Your task to perform on an android device: Check the weather Image 0: 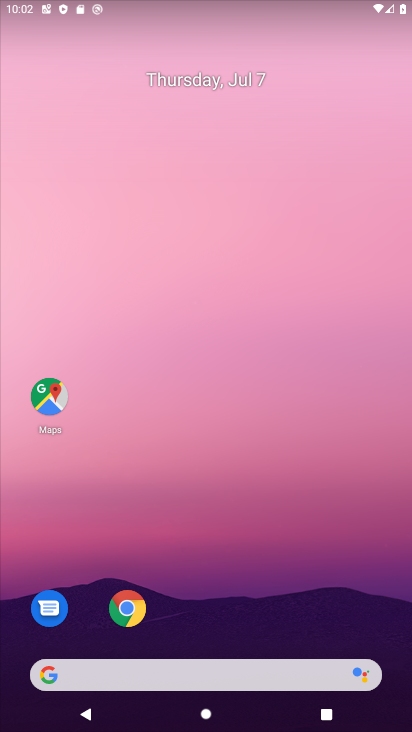
Step 0: drag from (264, 609) to (263, 216)
Your task to perform on an android device: Check the weather Image 1: 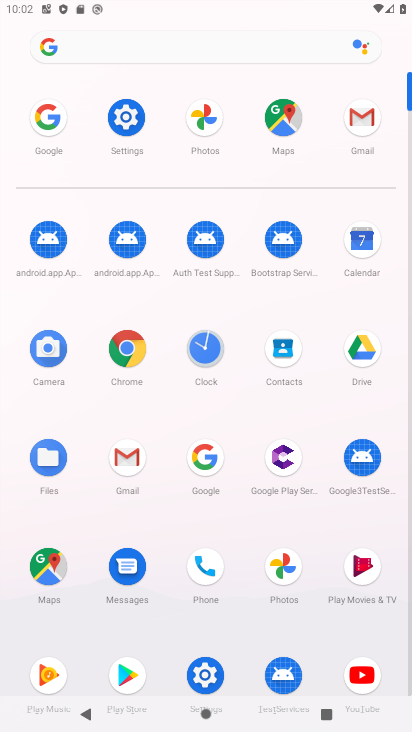
Step 1: click (203, 457)
Your task to perform on an android device: Check the weather Image 2: 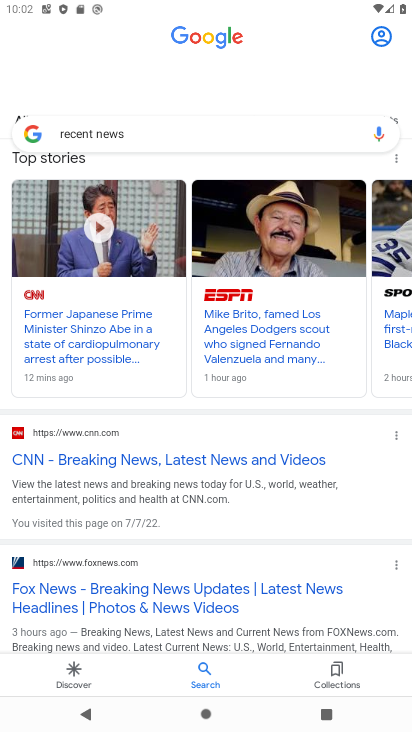
Step 2: click (175, 137)
Your task to perform on an android device: Check the weather Image 3: 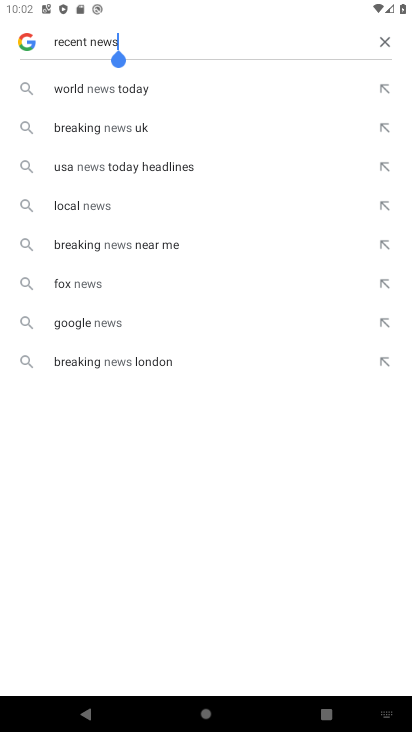
Step 3: click (384, 43)
Your task to perform on an android device: Check the weather Image 4: 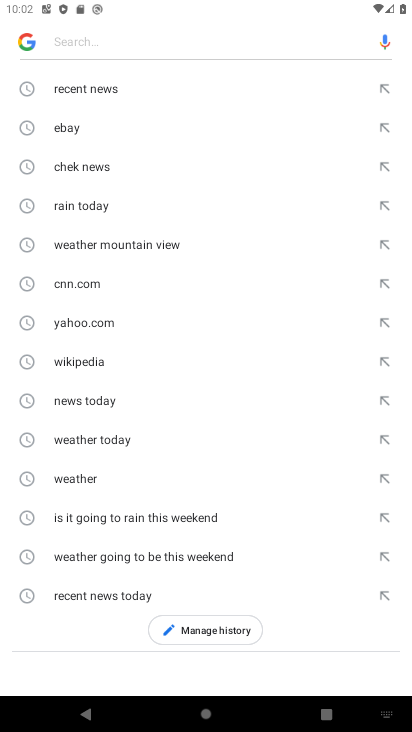
Step 4: type "weather"
Your task to perform on an android device: Check the weather Image 5: 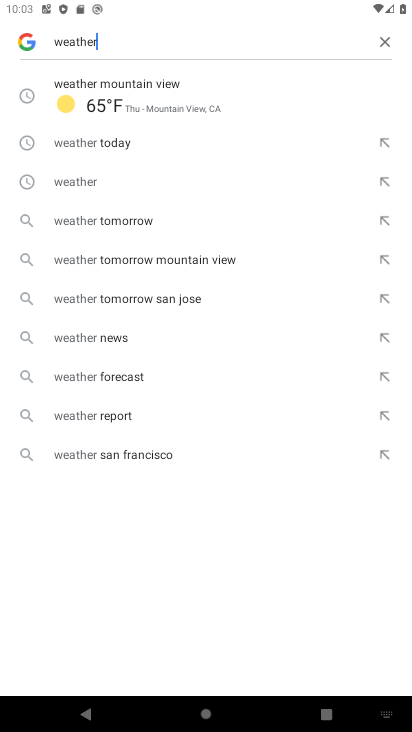
Step 5: click (127, 87)
Your task to perform on an android device: Check the weather Image 6: 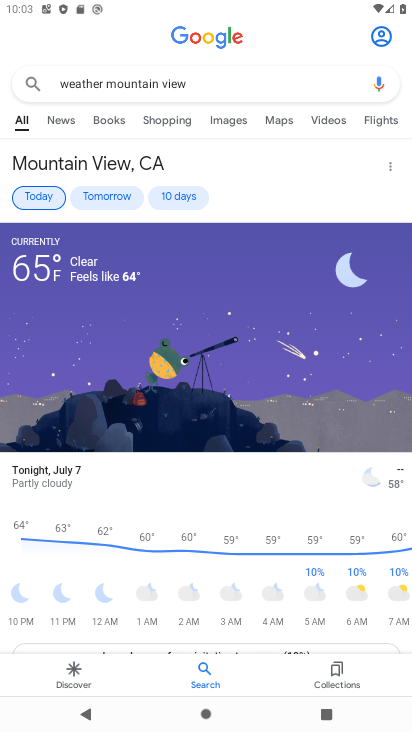
Step 6: task complete